Your task to perform on an android device: Open internet settings Image 0: 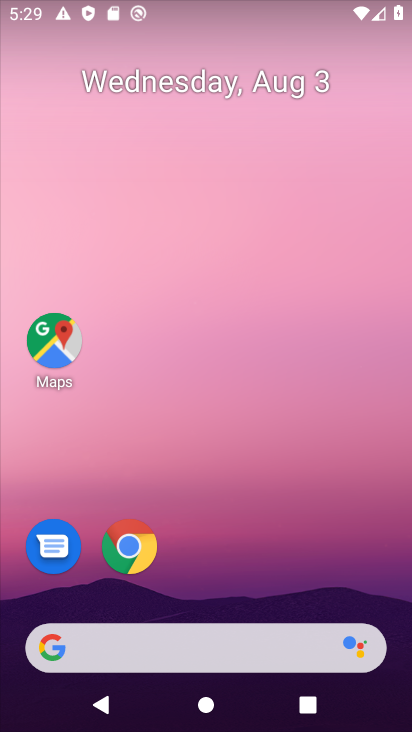
Step 0: drag from (234, 600) to (314, 124)
Your task to perform on an android device: Open internet settings Image 1: 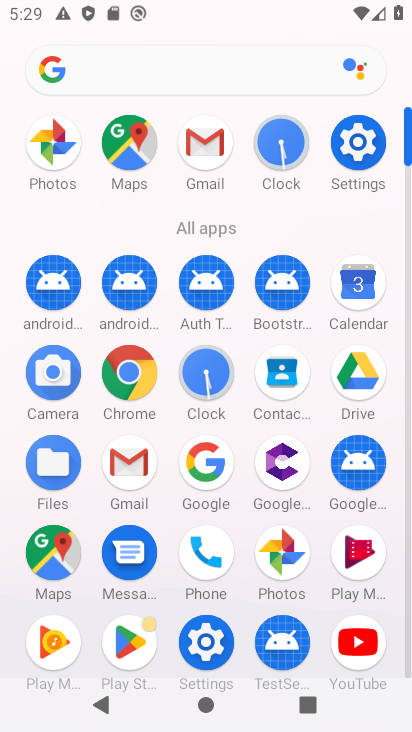
Step 1: click (346, 139)
Your task to perform on an android device: Open internet settings Image 2: 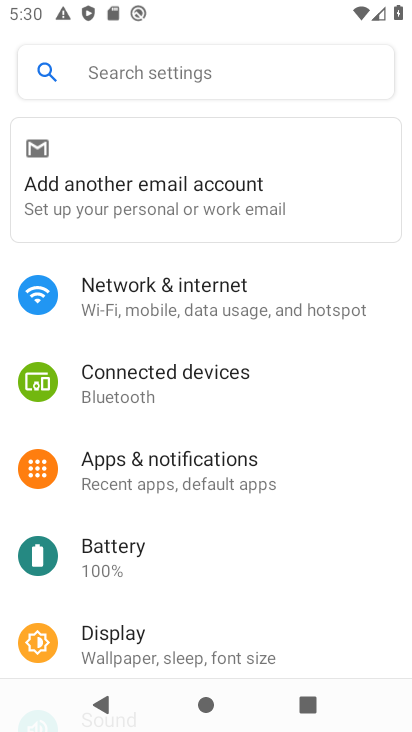
Step 2: click (163, 301)
Your task to perform on an android device: Open internet settings Image 3: 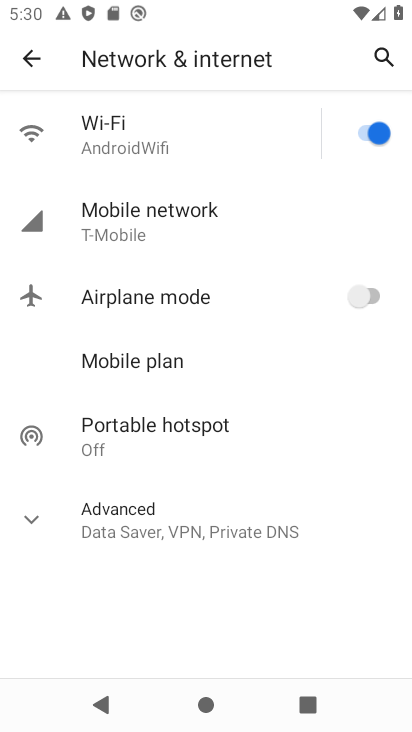
Step 3: task complete